Your task to perform on an android device: What's the weather? Image 0: 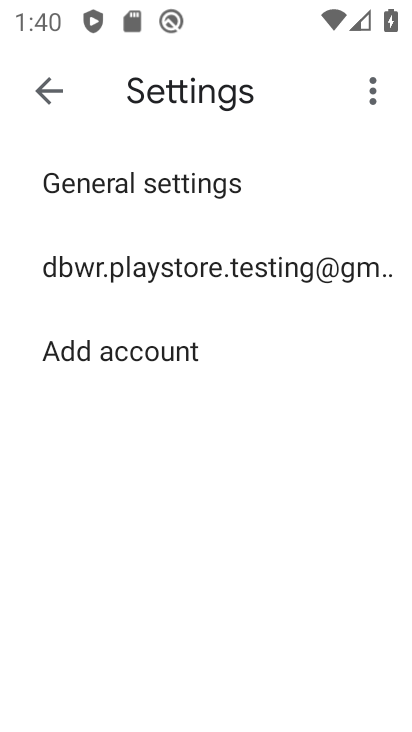
Step 0: press back button
Your task to perform on an android device: What's the weather? Image 1: 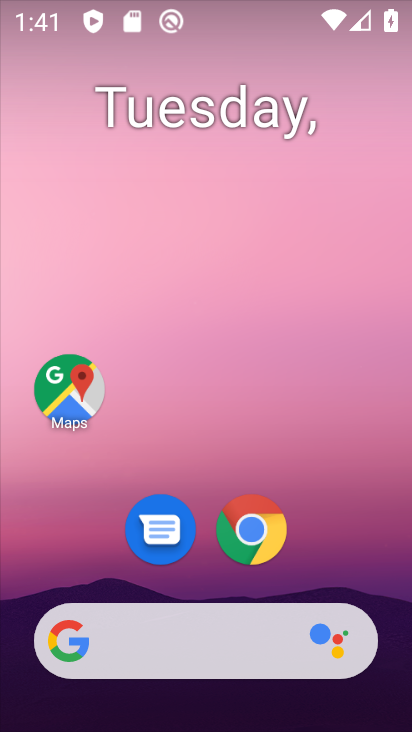
Step 1: drag from (331, 529) to (317, 220)
Your task to perform on an android device: What's the weather? Image 2: 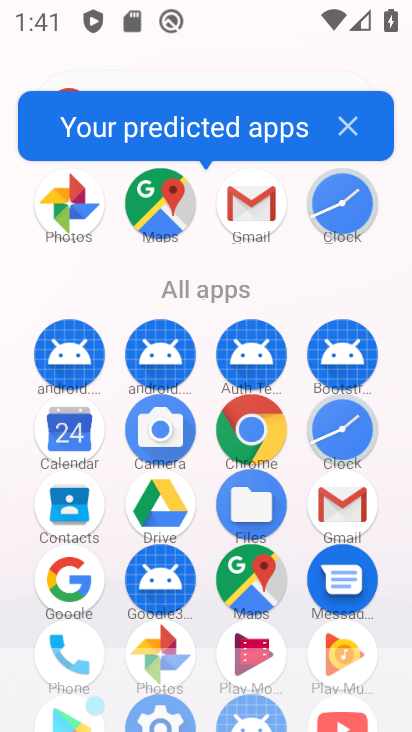
Step 2: drag from (199, 542) to (210, 340)
Your task to perform on an android device: What's the weather? Image 3: 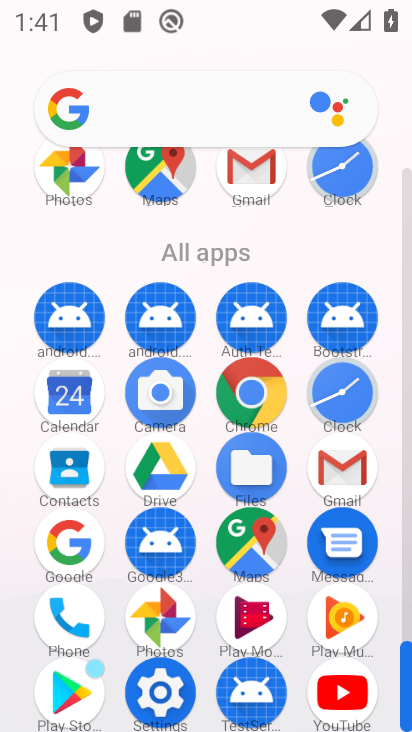
Step 3: click (63, 546)
Your task to perform on an android device: What's the weather? Image 4: 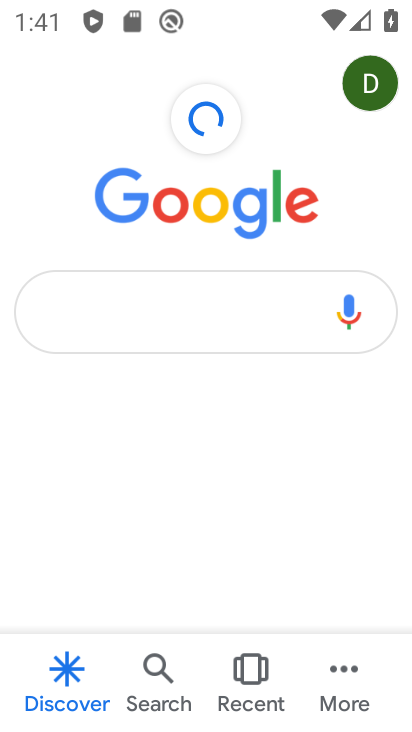
Step 4: click (178, 320)
Your task to perform on an android device: What's the weather? Image 5: 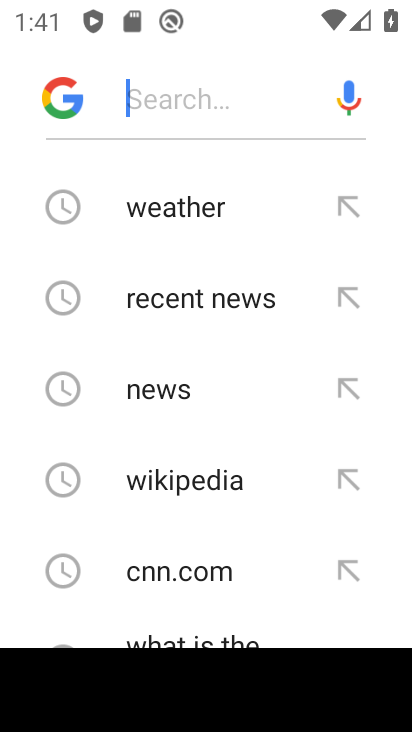
Step 5: click (197, 217)
Your task to perform on an android device: What's the weather? Image 6: 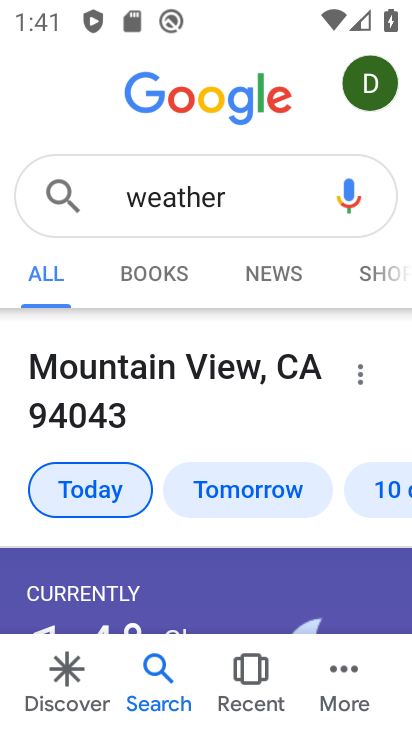
Step 6: task complete